Your task to perform on an android device: find which apps use the phone's location Image 0: 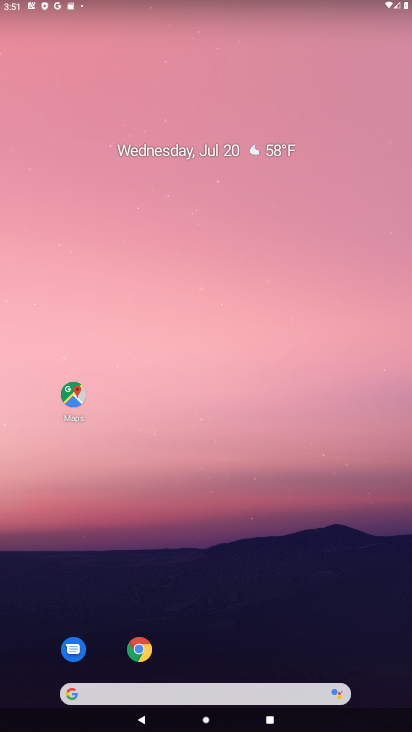
Step 0: drag from (224, 706) to (225, 213)
Your task to perform on an android device: find which apps use the phone's location Image 1: 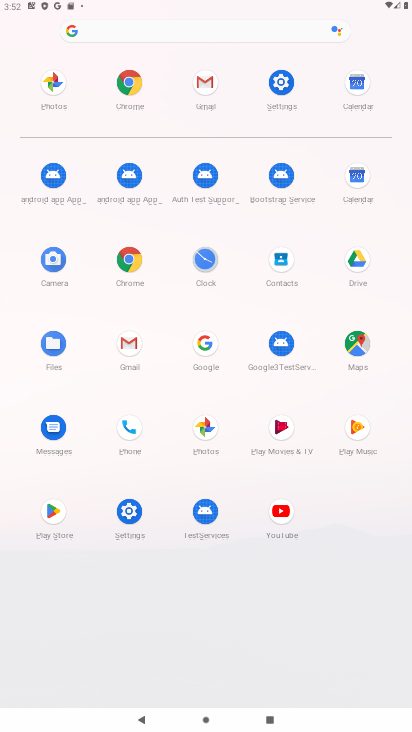
Step 1: click (282, 82)
Your task to perform on an android device: find which apps use the phone's location Image 2: 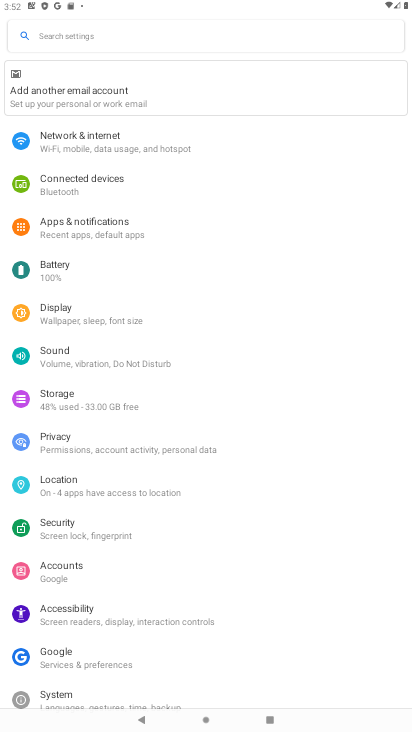
Step 2: click (52, 487)
Your task to perform on an android device: find which apps use the phone's location Image 3: 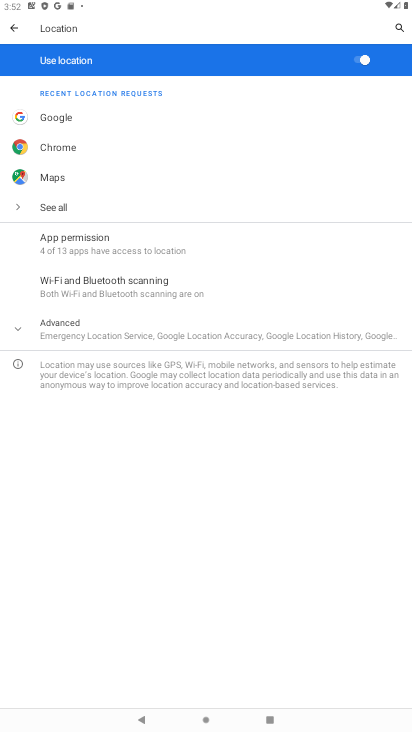
Step 3: click (94, 245)
Your task to perform on an android device: find which apps use the phone's location Image 4: 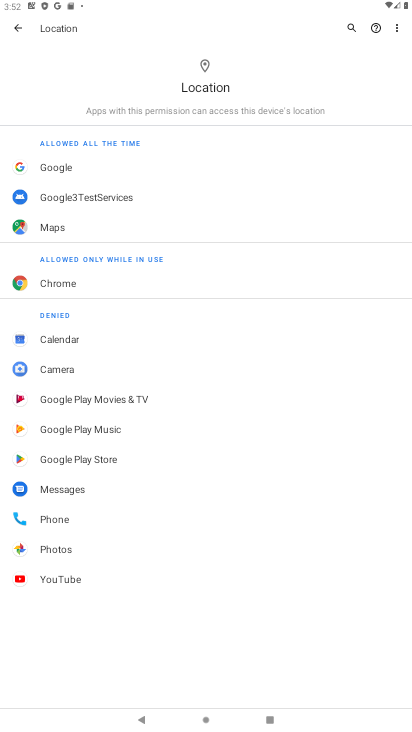
Step 4: task complete